Your task to perform on an android device: Toggle the flashlight Image 0: 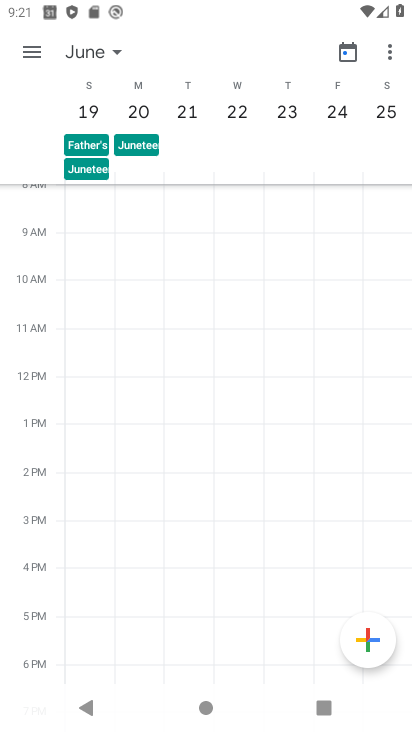
Step 0: press home button
Your task to perform on an android device: Toggle the flashlight Image 1: 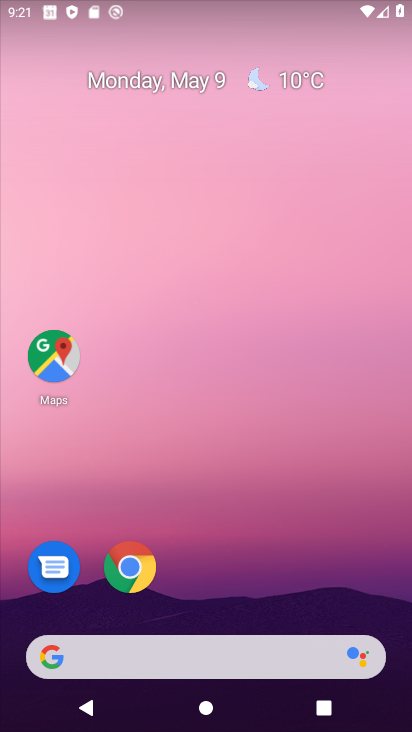
Step 1: drag from (288, 483) to (289, 44)
Your task to perform on an android device: Toggle the flashlight Image 2: 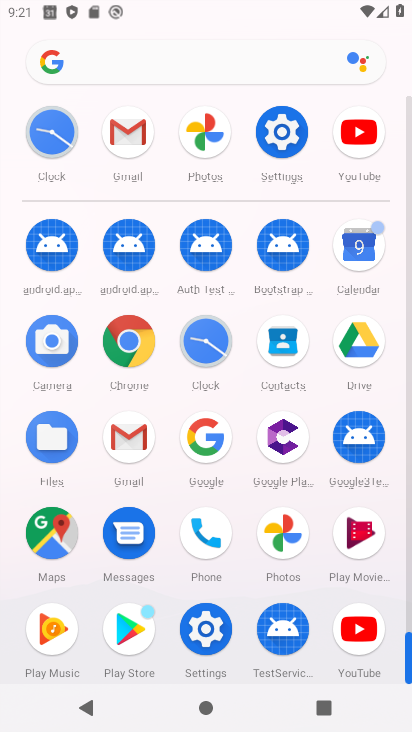
Step 2: click (278, 129)
Your task to perform on an android device: Toggle the flashlight Image 3: 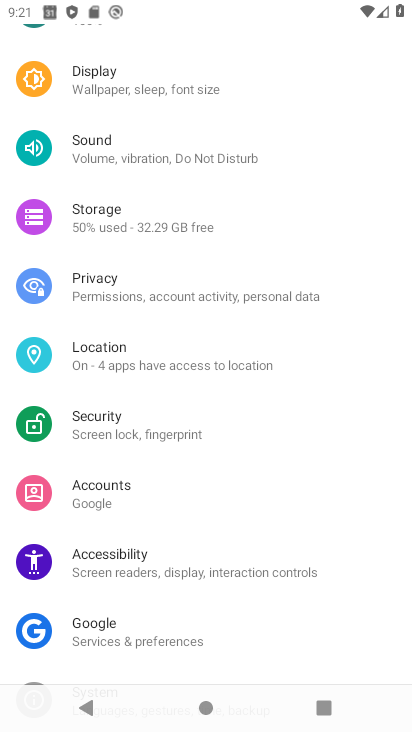
Step 3: drag from (230, 170) to (200, 534)
Your task to perform on an android device: Toggle the flashlight Image 4: 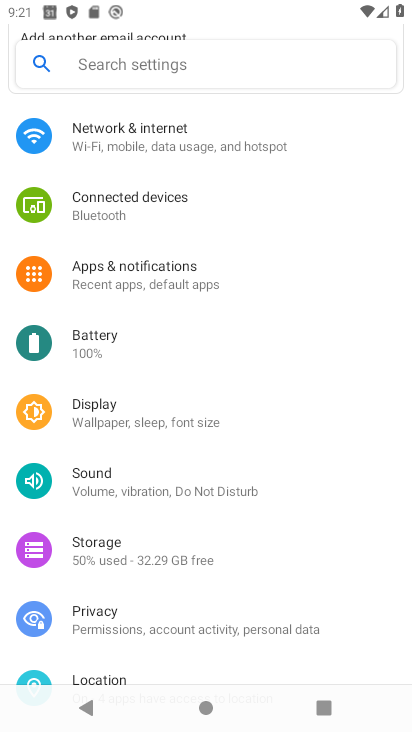
Step 4: drag from (198, 218) to (210, 538)
Your task to perform on an android device: Toggle the flashlight Image 5: 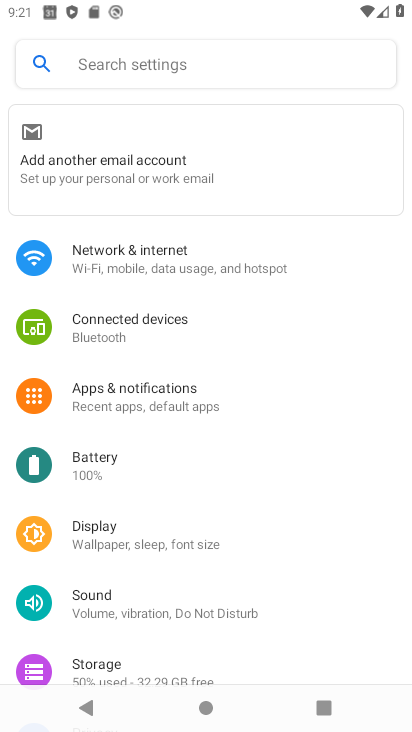
Step 5: click (240, 64)
Your task to perform on an android device: Toggle the flashlight Image 6: 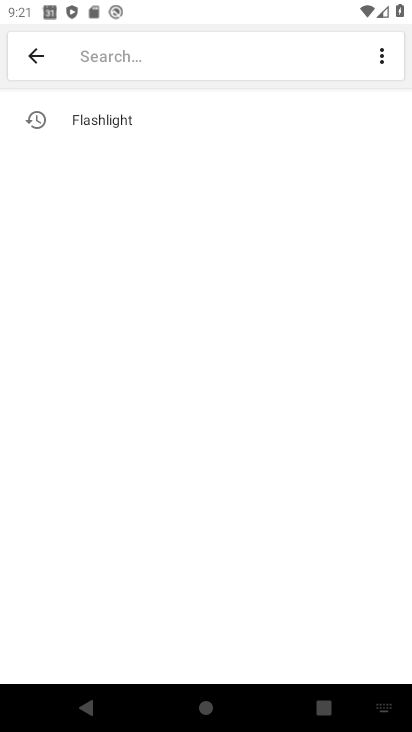
Step 6: click (103, 111)
Your task to perform on an android device: Toggle the flashlight Image 7: 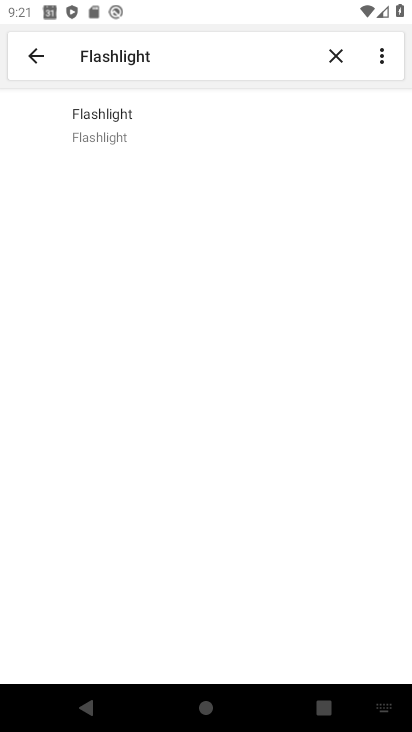
Step 7: click (103, 111)
Your task to perform on an android device: Toggle the flashlight Image 8: 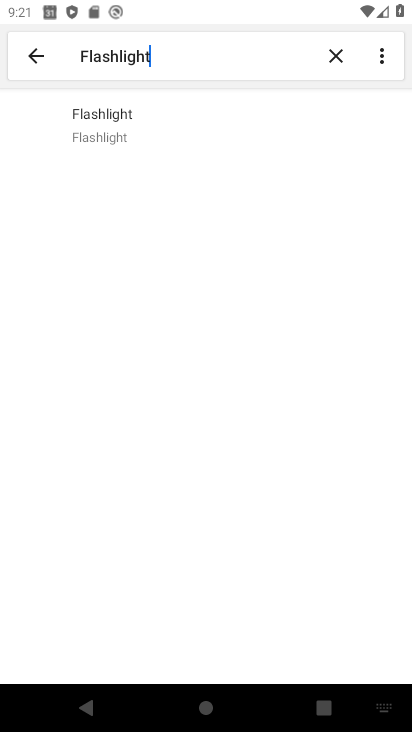
Step 8: task complete